Your task to perform on an android device: Add "razer blackwidow" to the cart on walmart Image 0: 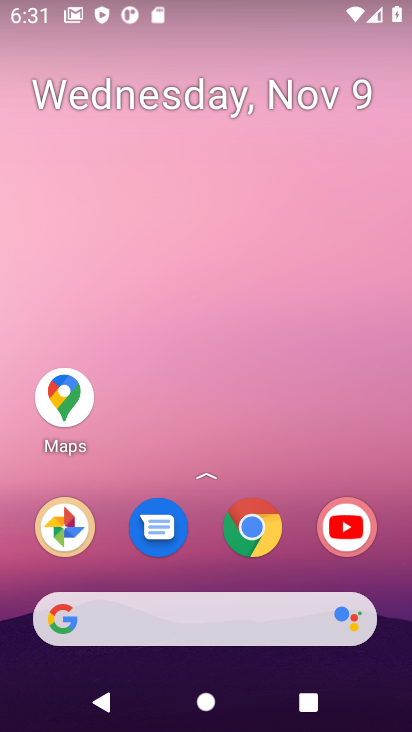
Step 0: click (246, 526)
Your task to perform on an android device: Add "razer blackwidow" to the cart on walmart Image 1: 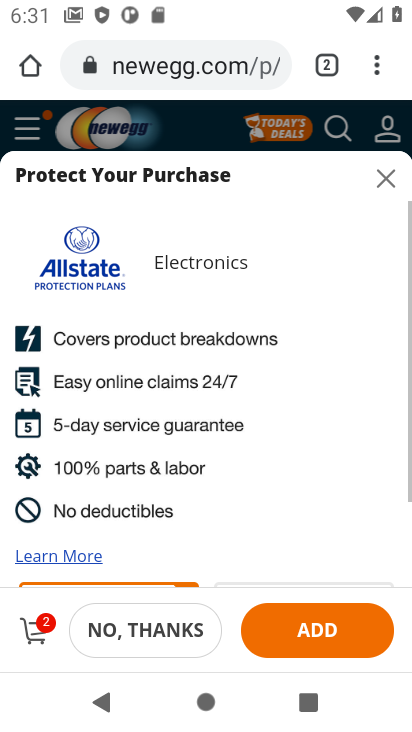
Step 1: click (231, 68)
Your task to perform on an android device: Add "razer blackwidow" to the cart on walmart Image 2: 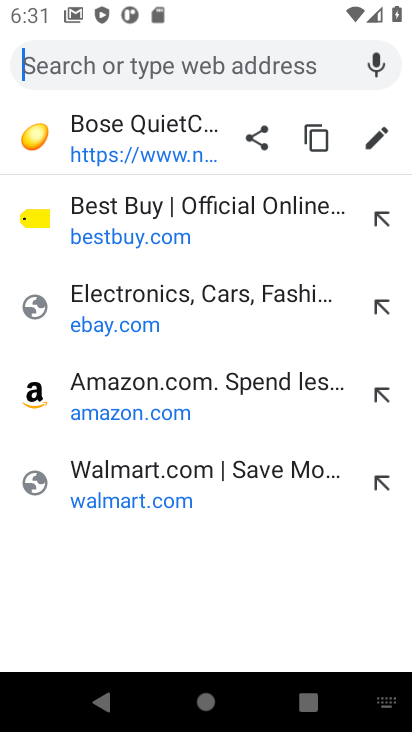
Step 2: click (133, 482)
Your task to perform on an android device: Add "razer blackwidow" to the cart on walmart Image 3: 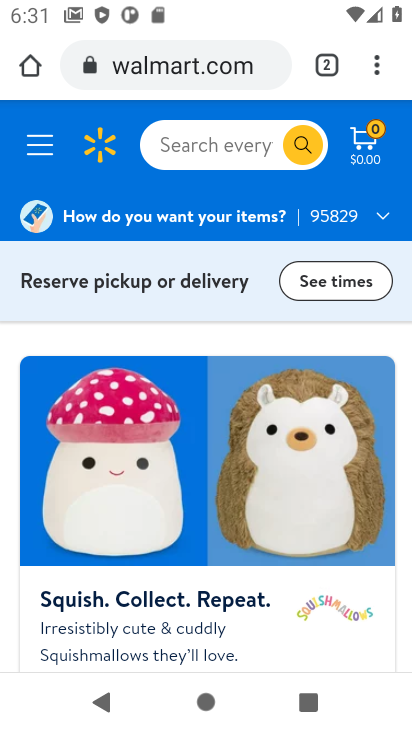
Step 3: click (219, 144)
Your task to perform on an android device: Add "razer blackwidow" to the cart on walmart Image 4: 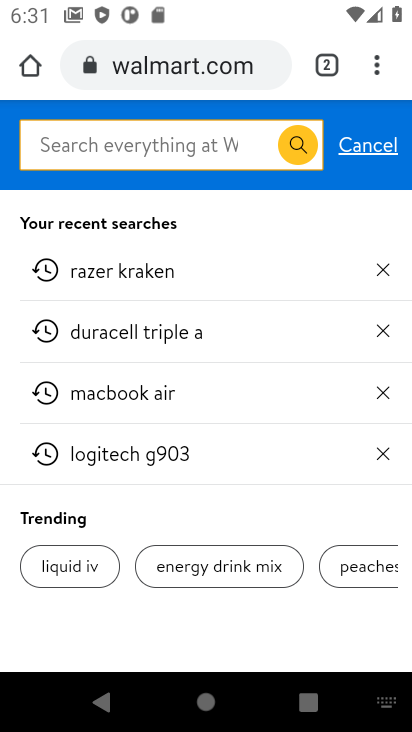
Step 4: type "razer blackwidow"
Your task to perform on an android device: Add "razer blackwidow" to the cart on walmart Image 5: 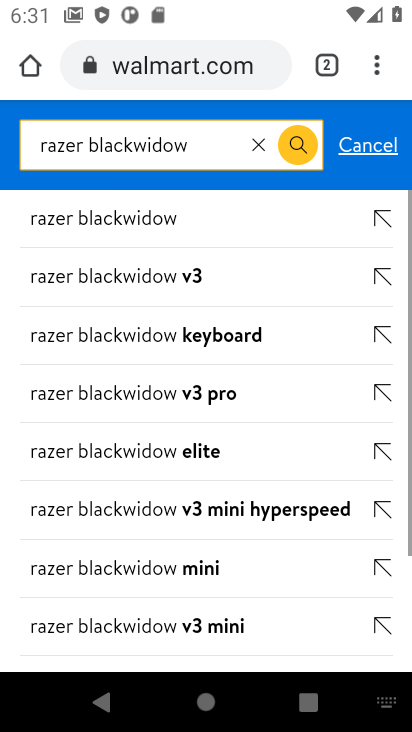
Step 5: click (158, 235)
Your task to perform on an android device: Add "razer blackwidow" to the cart on walmart Image 6: 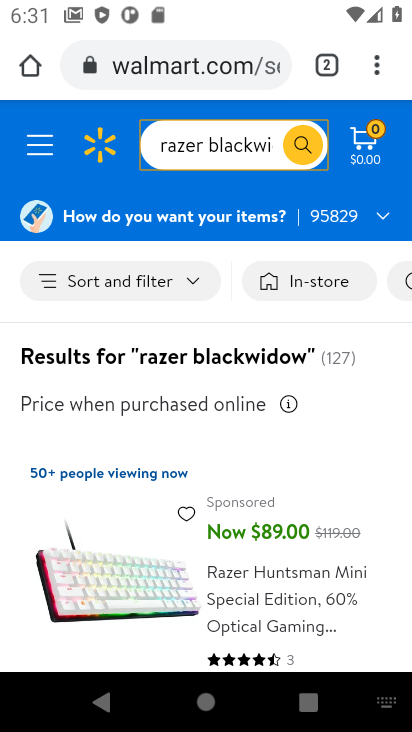
Step 6: drag from (158, 552) to (165, 223)
Your task to perform on an android device: Add "razer blackwidow" to the cart on walmart Image 7: 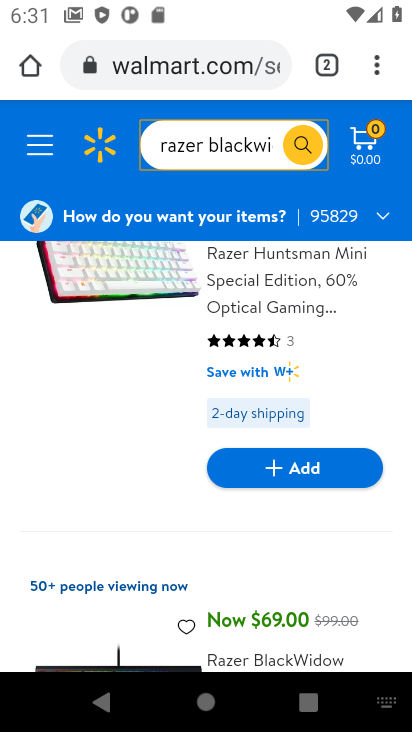
Step 7: drag from (171, 506) to (171, 344)
Your task to perform on an android device: Add "razer blackwidow" to the cart on walmart Image 8: 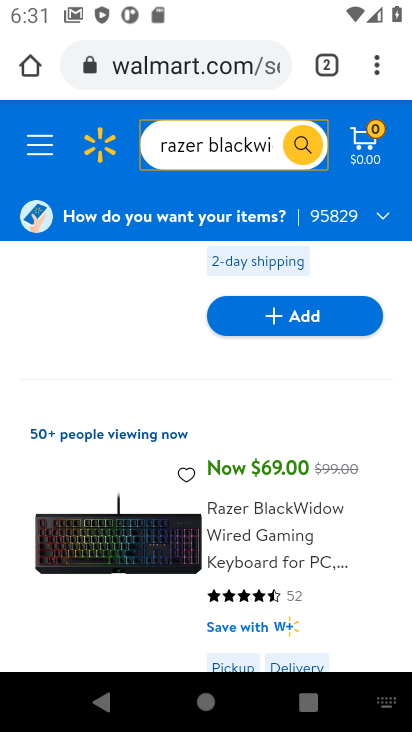
Step 8: click (179, 559)
Your task to perform on an android device: Add "razer blackwidow" to the cart on walmart Image 9: 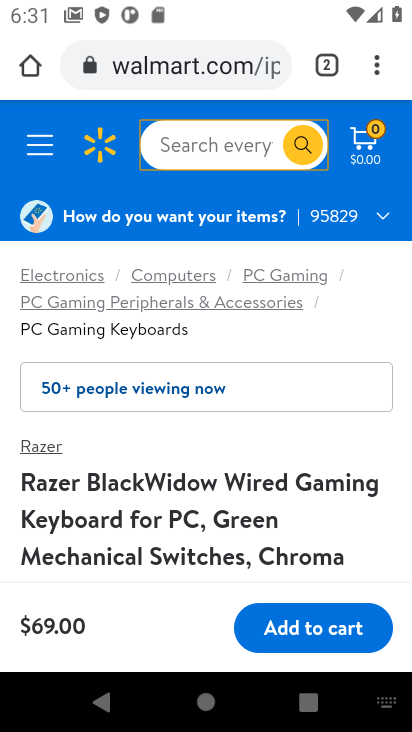
Step 9: click (312, 632)
Your task to perform on an android device: Add "razer blackwidow" to the cart on walmart Image 10: 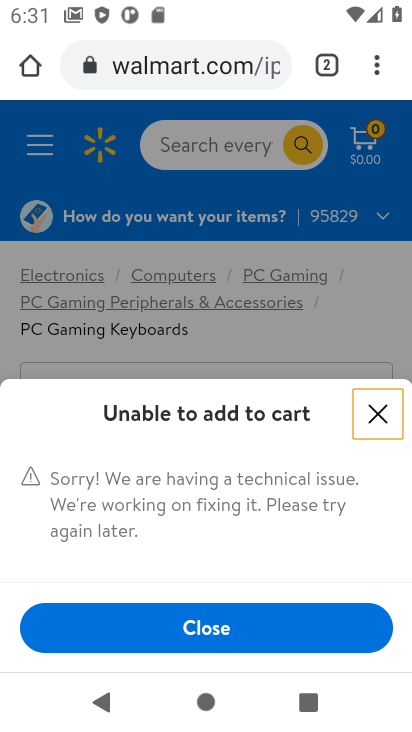
Step 10: task complete